Your task to perform on an android device: open device folders in google photos Image 0: 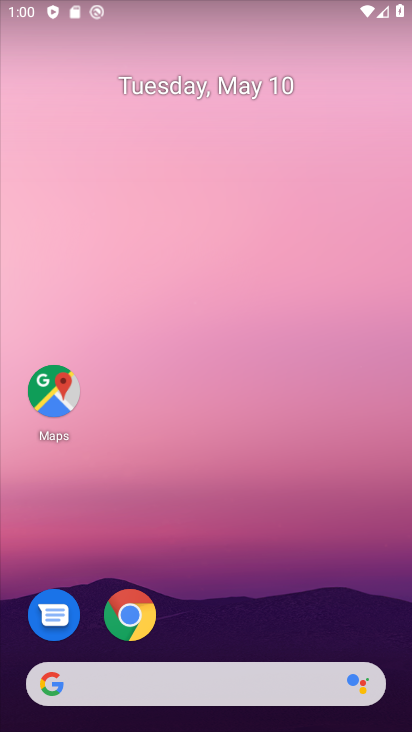
Step 0: drag from (214, 560) to (307, 36)
Your task to perform on an android device: open device folders in google photos Image 1: 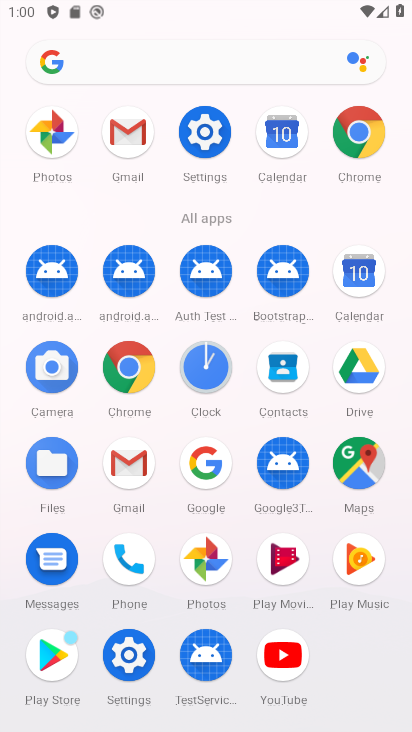
Step 1: click (205, 568)
Your task to perform on an android device: open device folders in google photos Image 2: 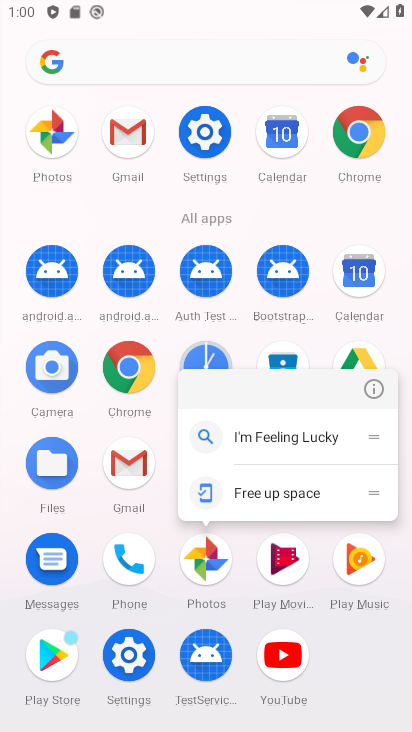
Step 2: click (205, 568)
Your task to perform on an android device: open device folders in google photos Image 3: 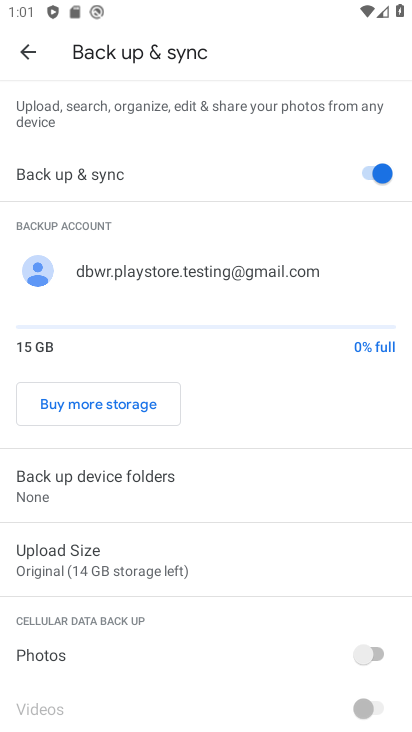
Step 3: click (34, 54)
Your task to perform on an android device: open device folders in google photos Image 4: 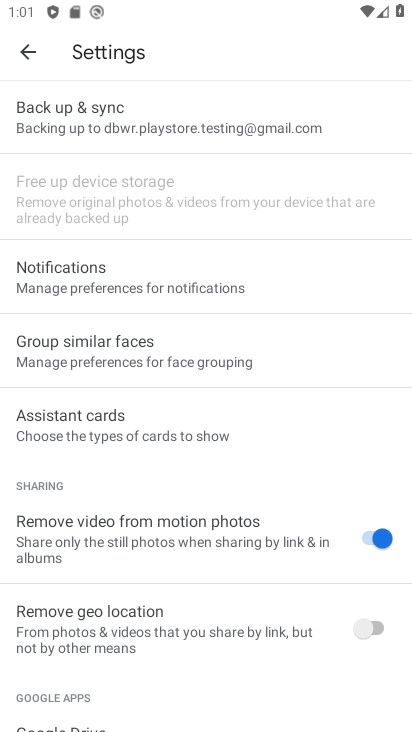
Step 4: click (41, 56)
Your task to perform on an android device: open device folders in google photos Image 5: 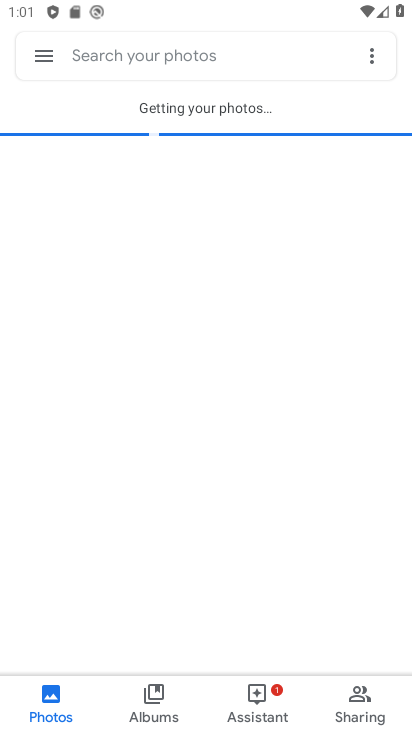
Step 5: click (33, 57)
Your task to perform on an android device: open device folders in google photos Image 6: 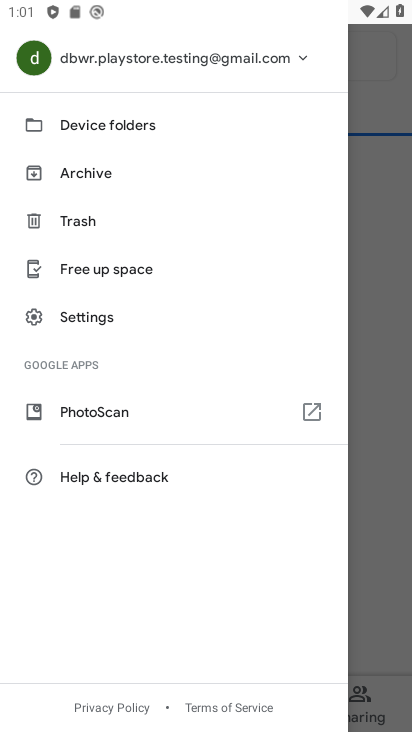
Step 6: click (109, 130)
Your task to perform on an android device: open device folders in google photos Image 7: 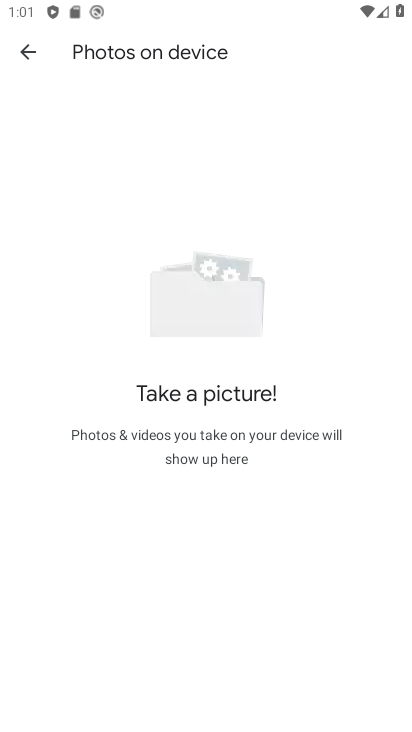
Step 7: task complete